Your task to perform on an android device: Show me productivity apps on the Play Store Image 0: 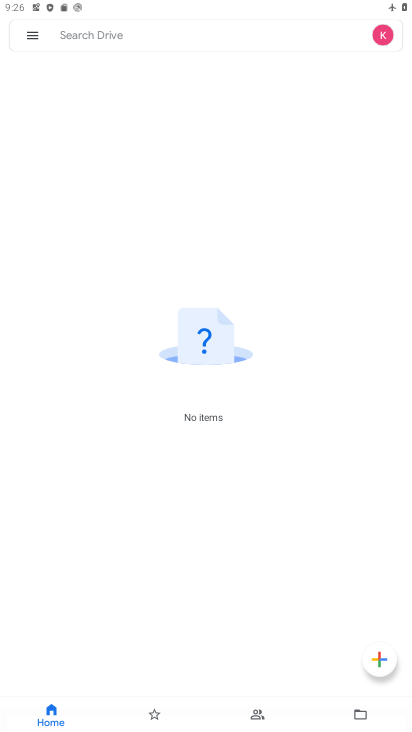
Step 0: press home button
Your task to perform on an android device: Show me productivity apps on the Play Store Image 1: 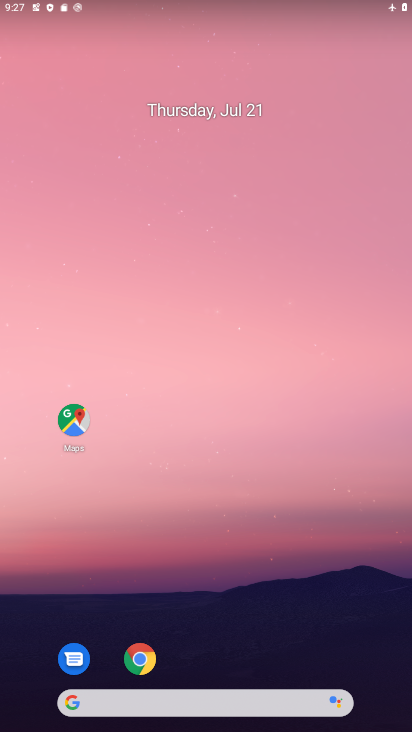
Step 1: drag from (242, 681) to (217, 29)
Your task to perform on an android device: Show me productivity apps on the Play Store Image 2: 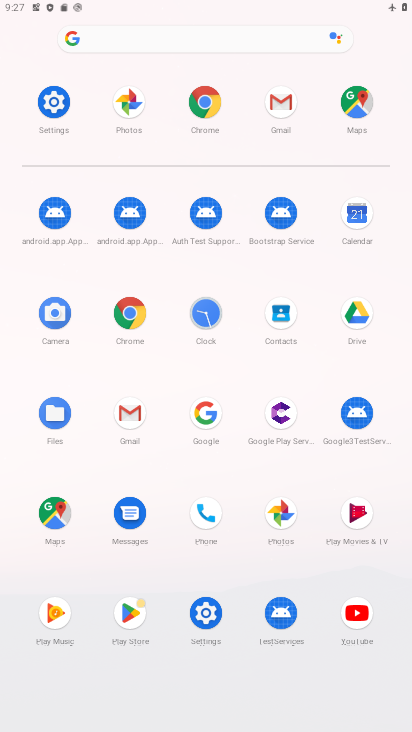
Step 2: click (110, 620)
Your task to perform on an android device: Show me productivity apps on the Play Store Image 3: 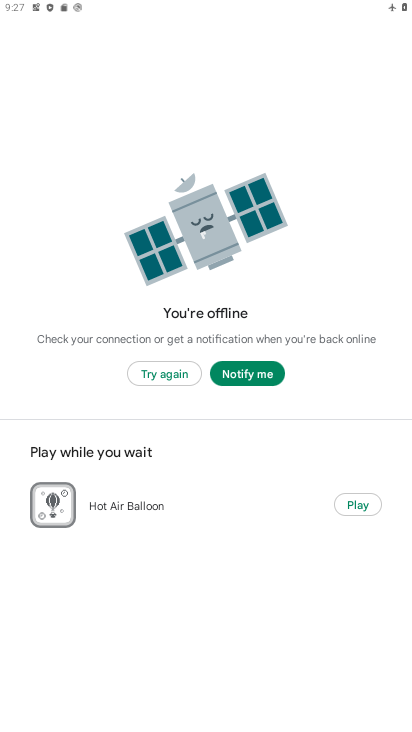
Step 3: task complete